Your task to perform on an android device: Add macbook air to the cart on ebay.com Image 0: 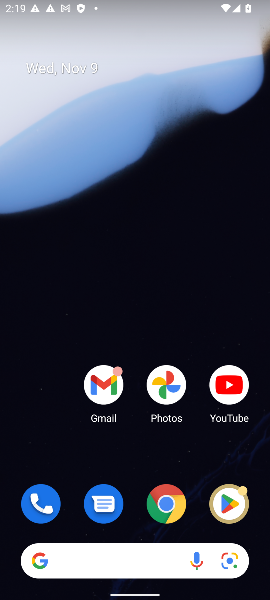
Step 0: click (168, 506)
Your task to perform on an android device: Add macbook air to the cart on ebay.com Image 1: 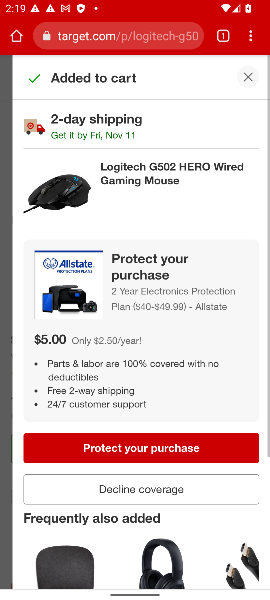
Step 1: click (107, 41)
Your task to perform on an android device: Add macbook air to the cart on ebay.com Image 2: 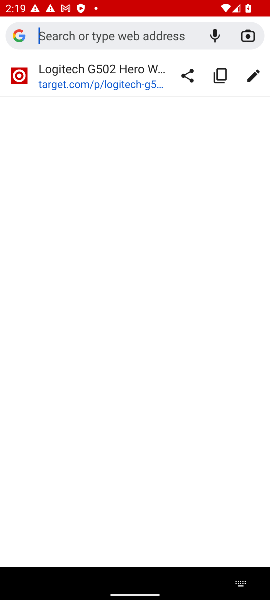
Step 2: type "ebay.com"
Your task to perform on an android device: Add macbook air to the cart on ebay.com Image 3: 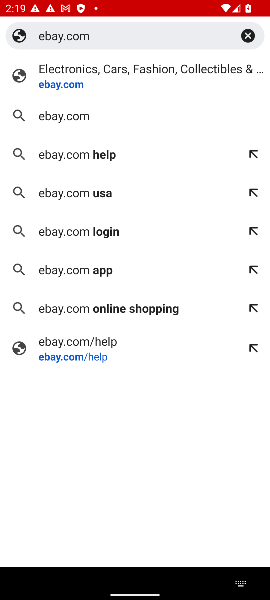
Step 3: click (60, 87)
Your task to perform on an android device: Add macbook air to the cart on ebay.com Image 4: 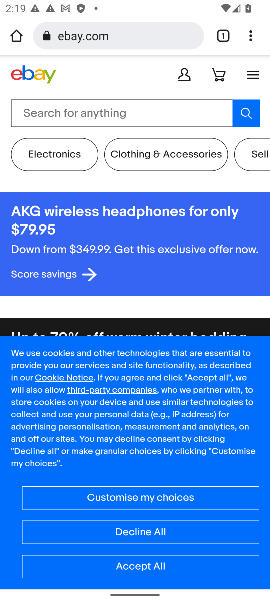
Step 4: click (35, 114)
Your task to perform on an android device: Add macbook air to the cart on ebay.com Image 5: 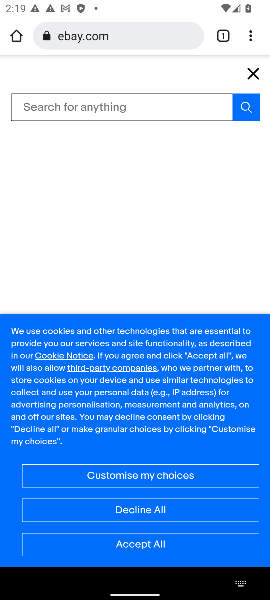
Step 5: type "macbook air"
Your task to perform on an android device: Add macbook air to the cart on ebay.com Image 6: 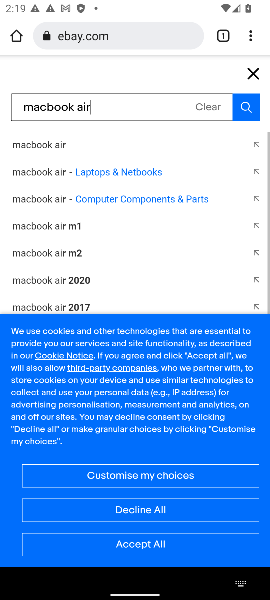
Step 6: click (38, 146)
Your task to perform on an android device: Add macbook air to the cart on ebay.com Image 7: 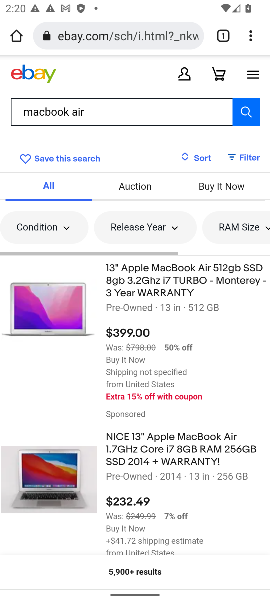
Step 7: click (61, 333)
Your task to perform on an android device: Add macbook air to the cart on ebay.com Image 8: 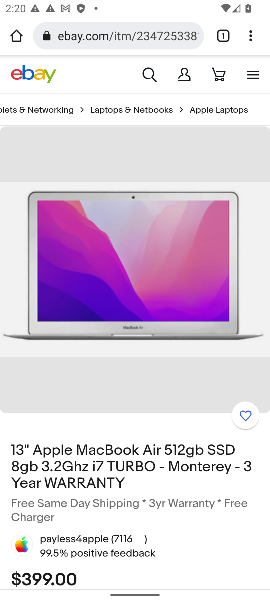
Step 8: drag from (150, 459) to (155, 216)
Your task to perform on an android device: Add macbook air to the cart on ebay.com Image 9: 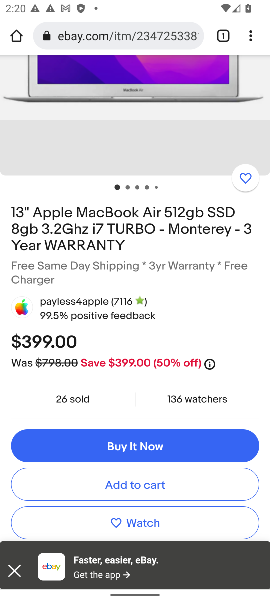
Step 9: click (129, 483)
Your task to perform on an android device: Add macbook air to the cart on ebay.com Image 10: 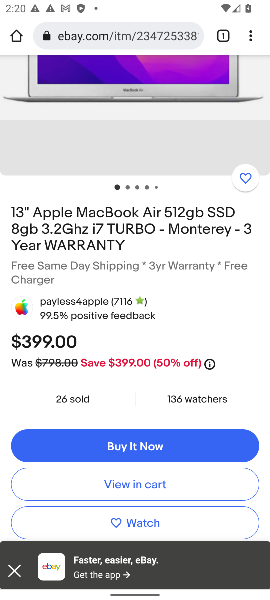
Step 10: task complete